Your task to perform on an android device: Find coffee shops on Maps Image 0: 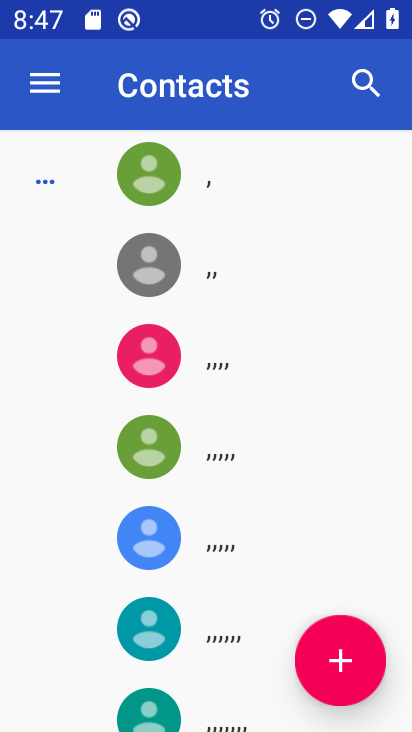
Step 0: press home button
Your task to perform on an android device: Find coffee shops on Maps Image 1: 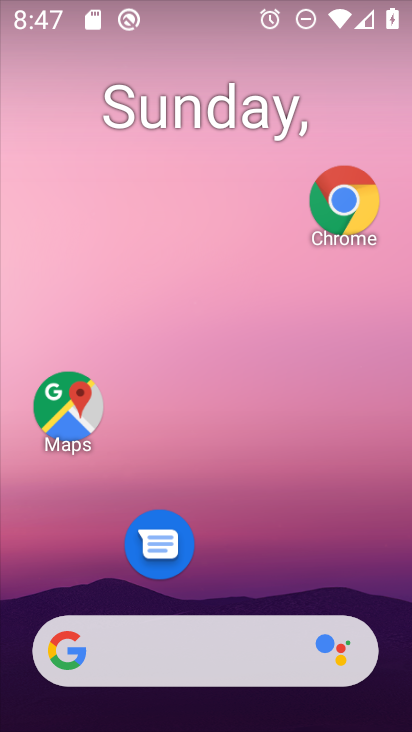
Step 1: click (56, 403)
Your task to perform on an android device: Find coffee shops on Maps Image 2: 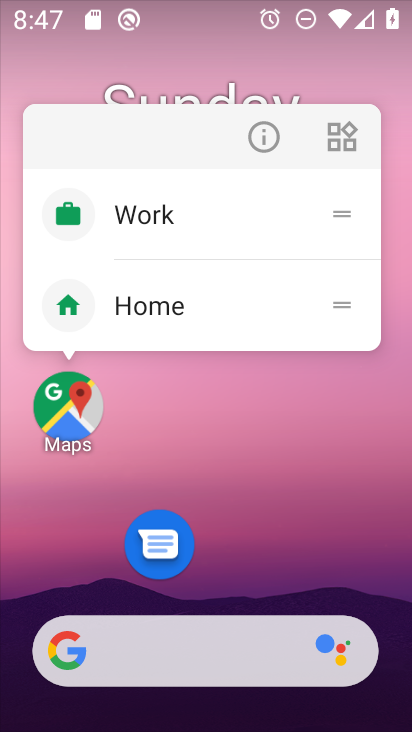
Step 2: click (56, 403)
Your task to perform on an android device: Find coffee shops on Maps Image 3: 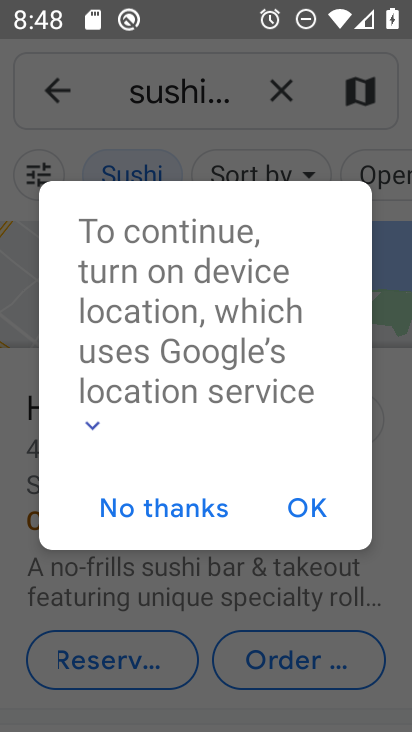
Step 3: click (149, 509)
Your task to perform on an android device: Find coffee shops on Maps Image 4: 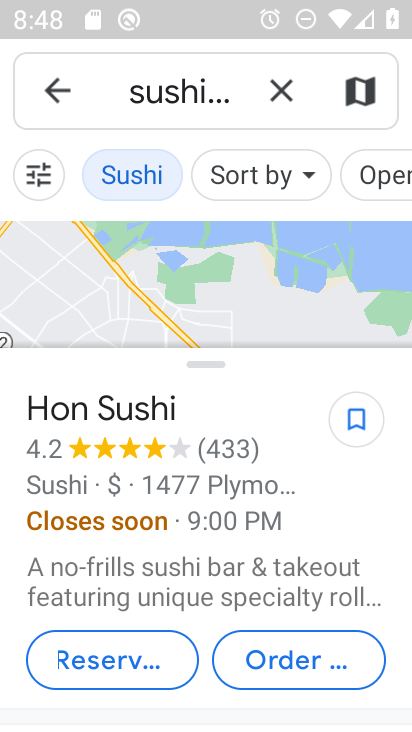
Step 4: click (279, 92)
Your task to perform on an android device: Find coffee shops on Maps Image 5: 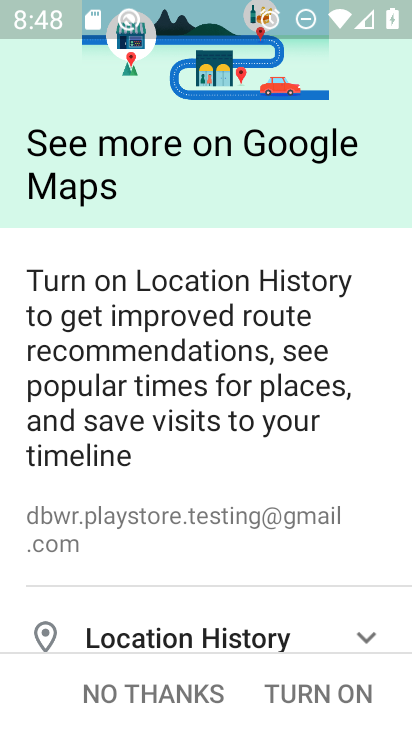
Step 5: click (183, 685)
Your task to perform on an android device: Find coffee shops on Maps Image 6: 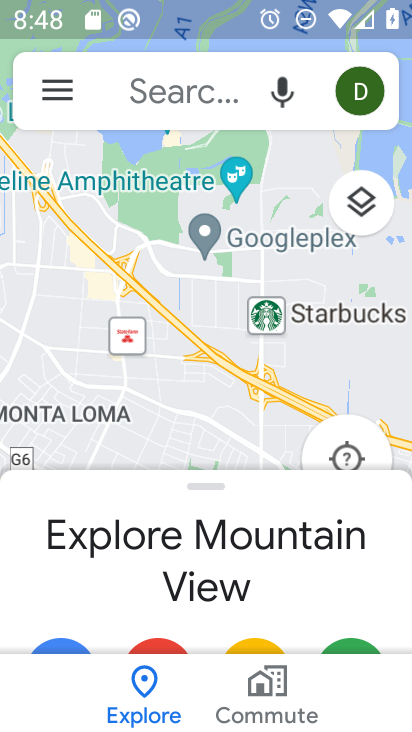
Step 6: click (157, 81)
Your task to perform on an android device: Find coffee shops on Maps Image 7: 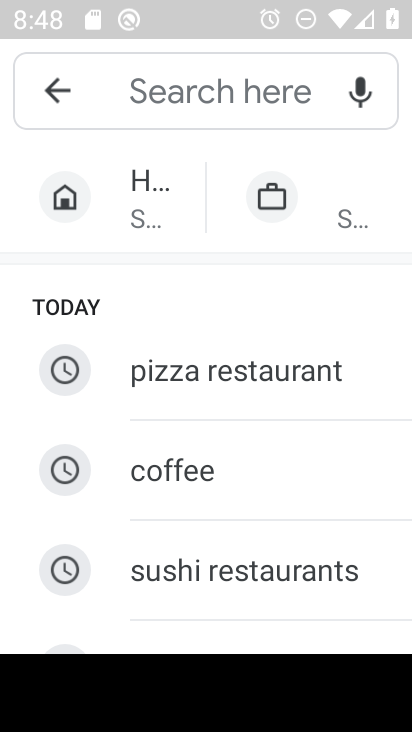
Step 7: type "coffee shops"
Your task to perform on an android device: Find coffee shops on Maps Image 8: 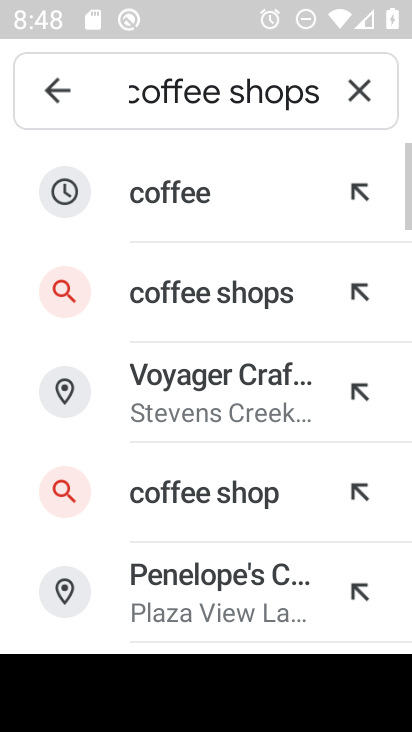
Step 8: click (167, 294)
Your task to perform on an android device: Find coffee shops on Maps Image 9: 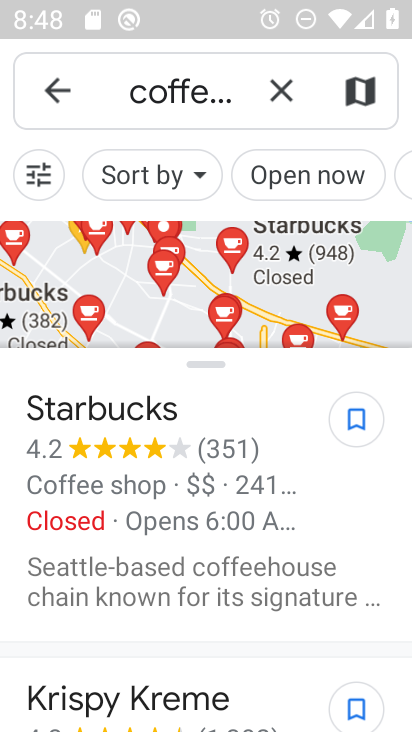
Step 9: task complete